Your task to perform on an android device: Clear the cart on costco. Image 0: 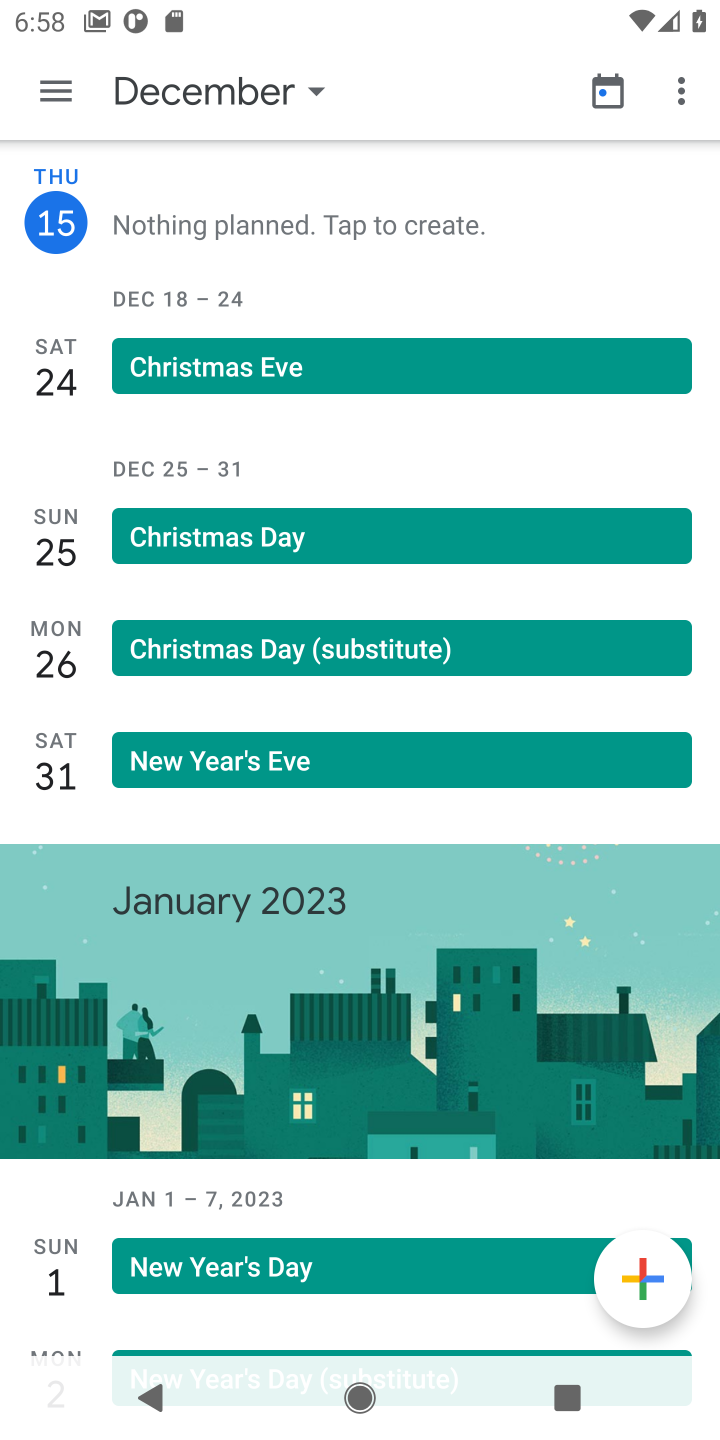
Step 0: press home button
Your task to perform on an android device: Clear the cart on costco. Image 1: 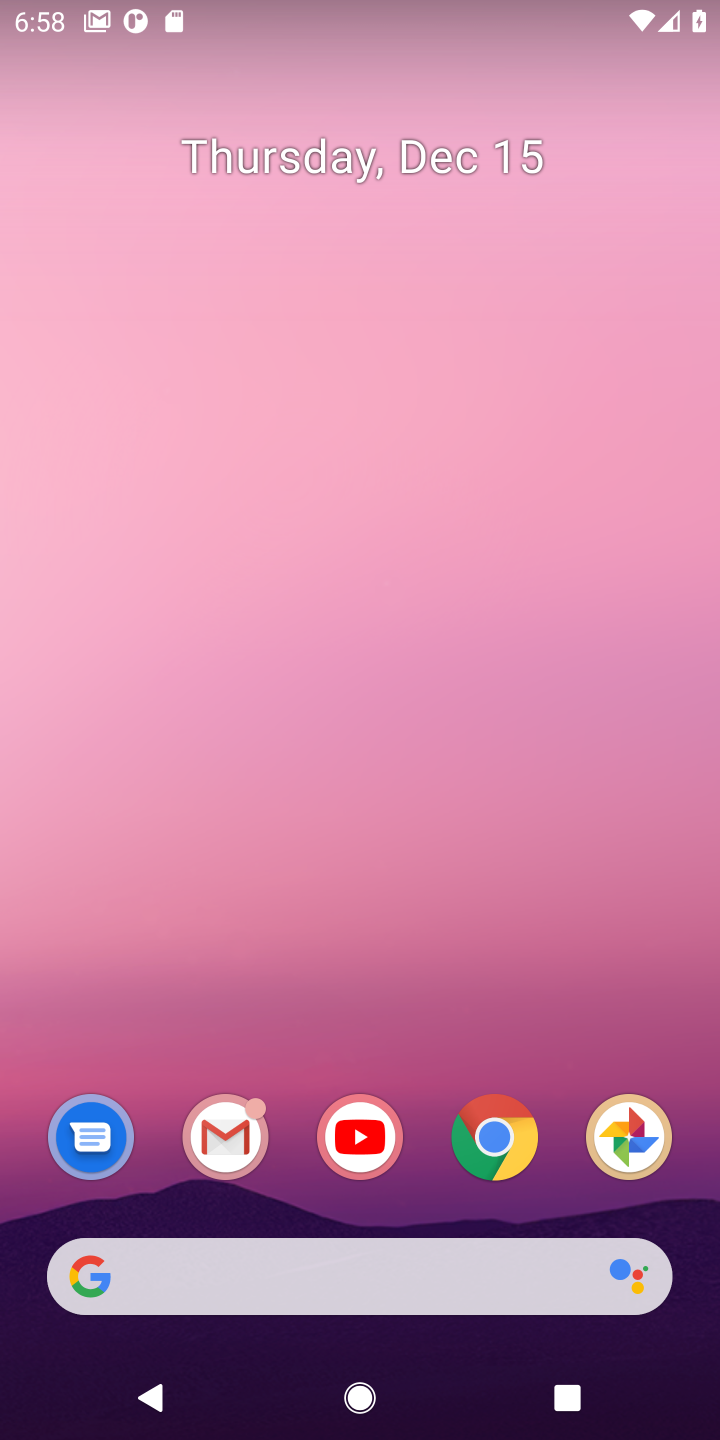
Step 1: drag from (330, 1276) to (337, 354)
Your task to perform on an android device: Clear the cart on costco. Image 2: 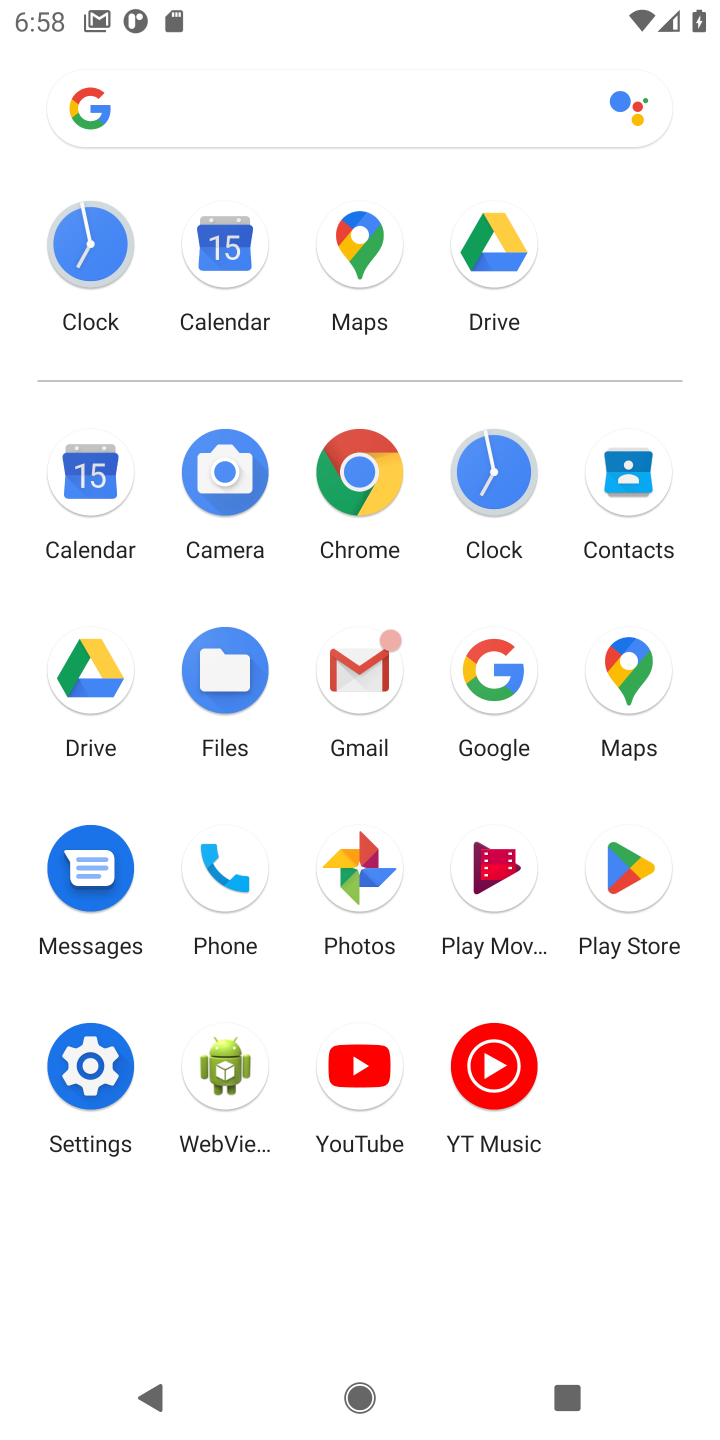
Step 2: click (482, 671)
Your task to perform on an android device: Clear the cart on costco. Image 3: 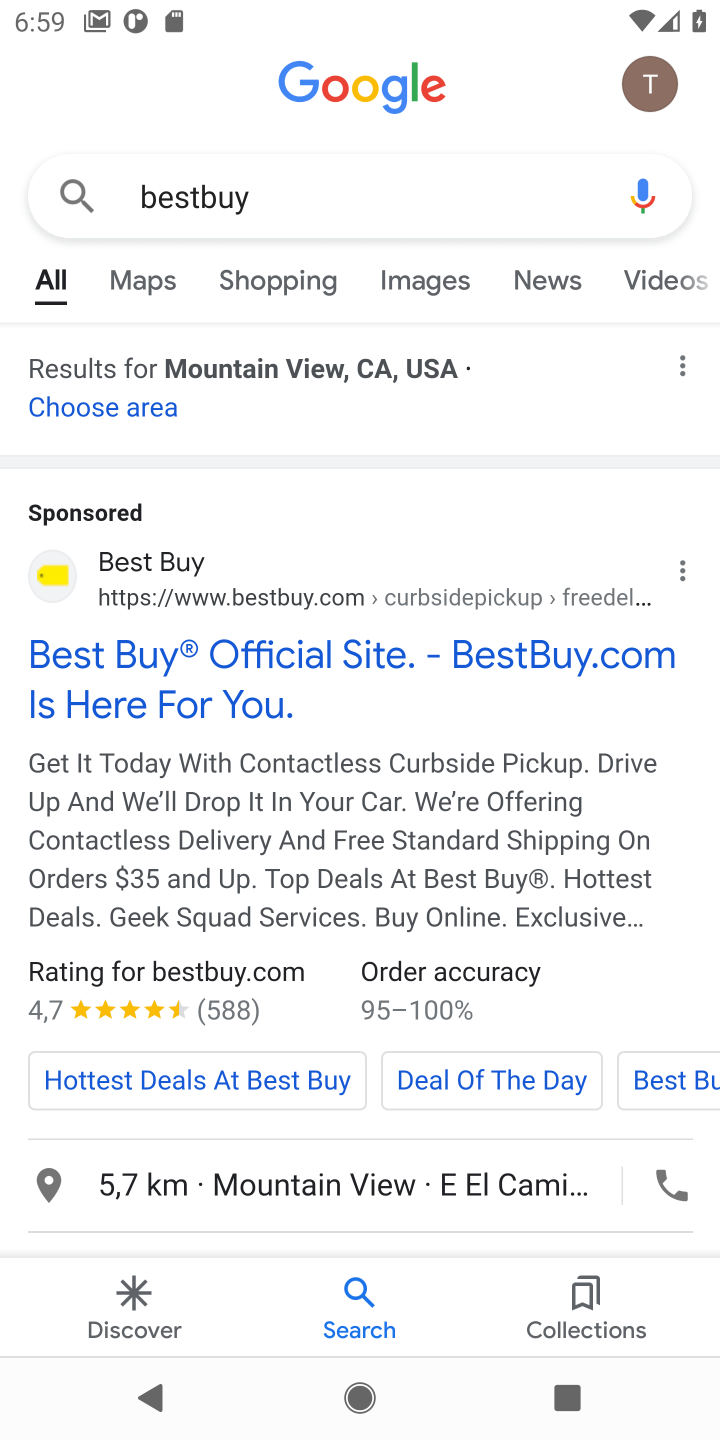
Step 3: click (200, 196)
Your task to perform on an android device: Clear the cart on costco. Image 4: 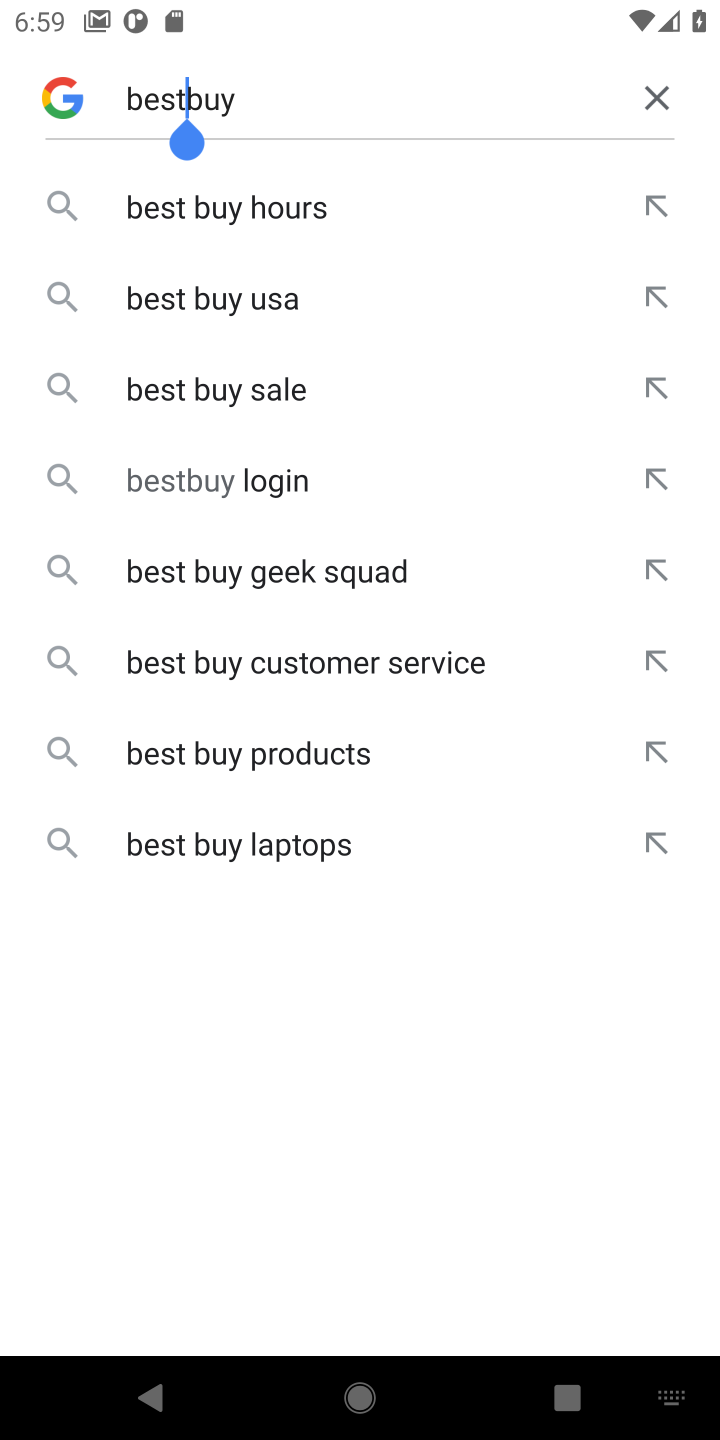
Step 4: click (665, 105)
Your task to perform on an android device: Clear the cart on costco. Image 5: 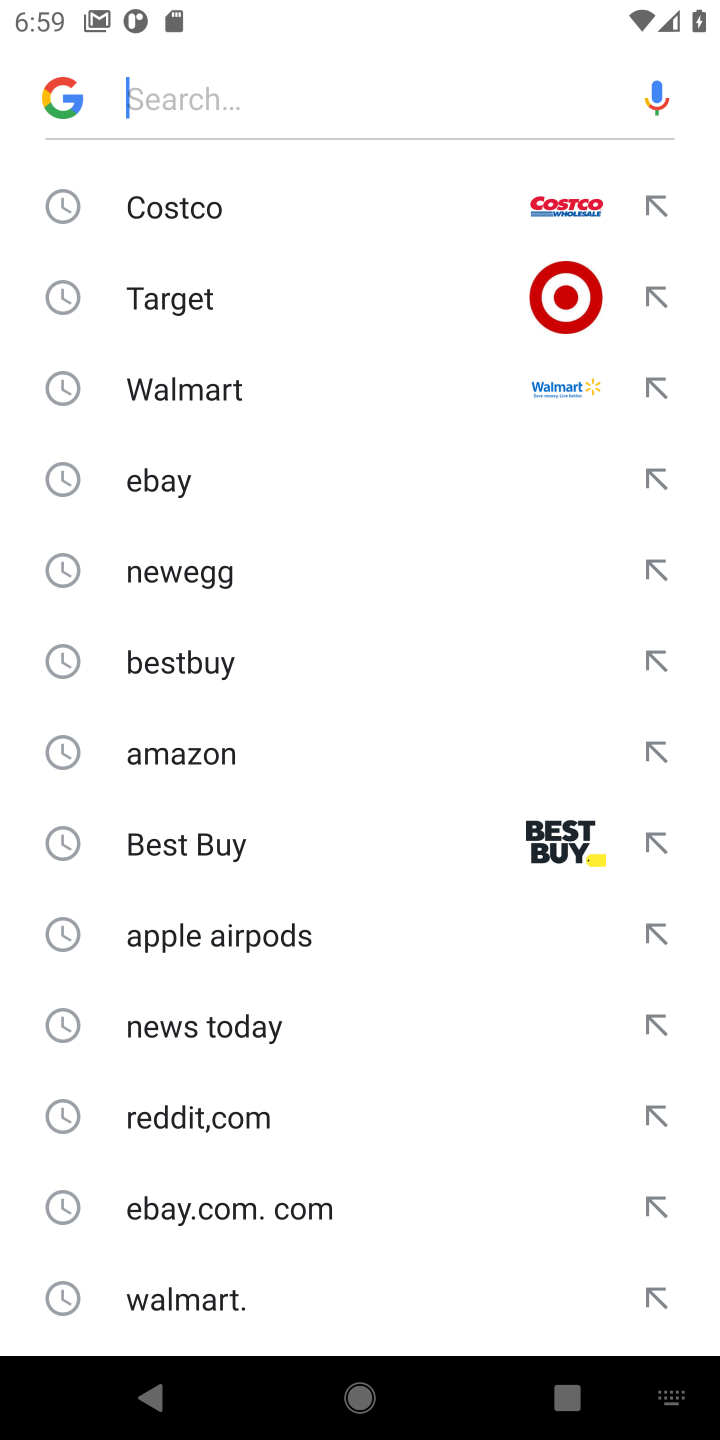
Step 5: click (568, 196)
Your task to perform on an android device: Clear the cart on costco. Image 6: 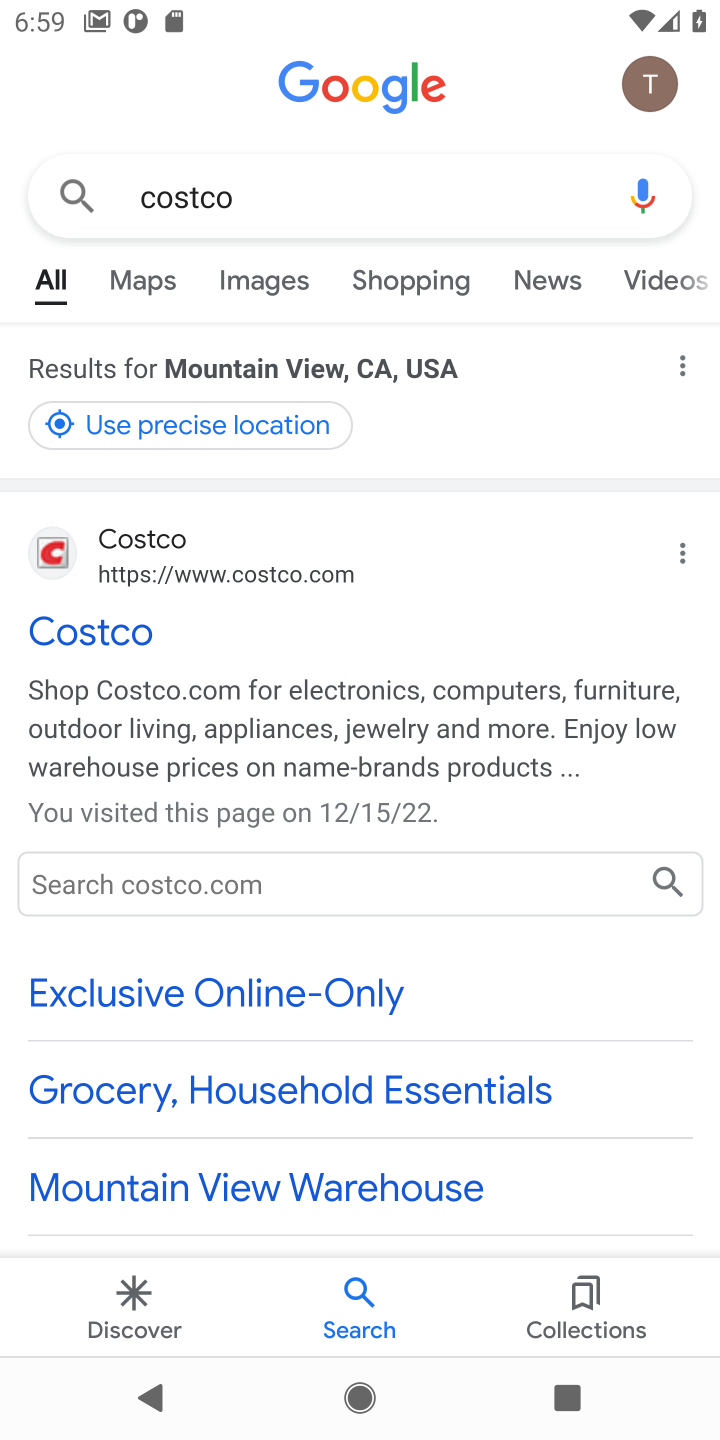
Step 6: click (82, 623)
Your task to perform on an android device: Clear the cart on costco. Image 7: 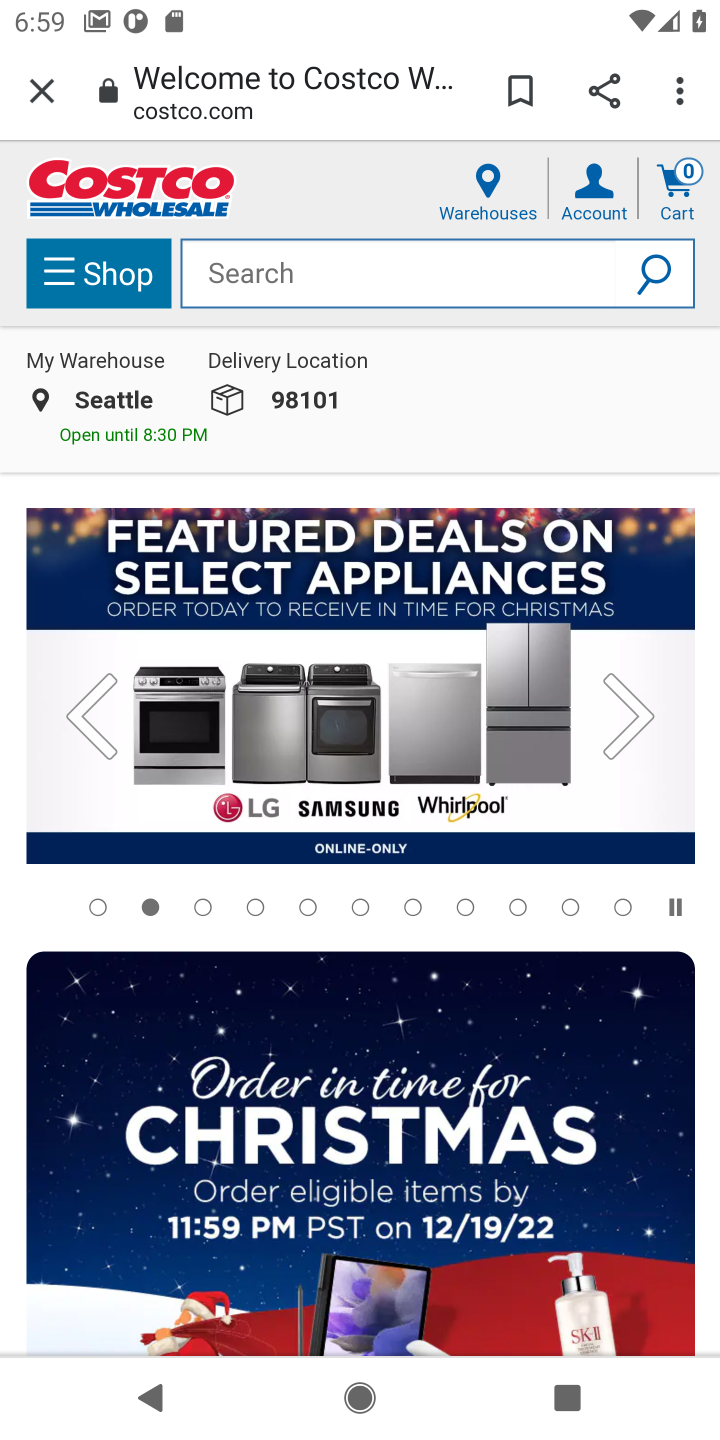
Step 7: click (667, 183)
Your task to perform on an android device: Clear the cart on costco. Image 8: 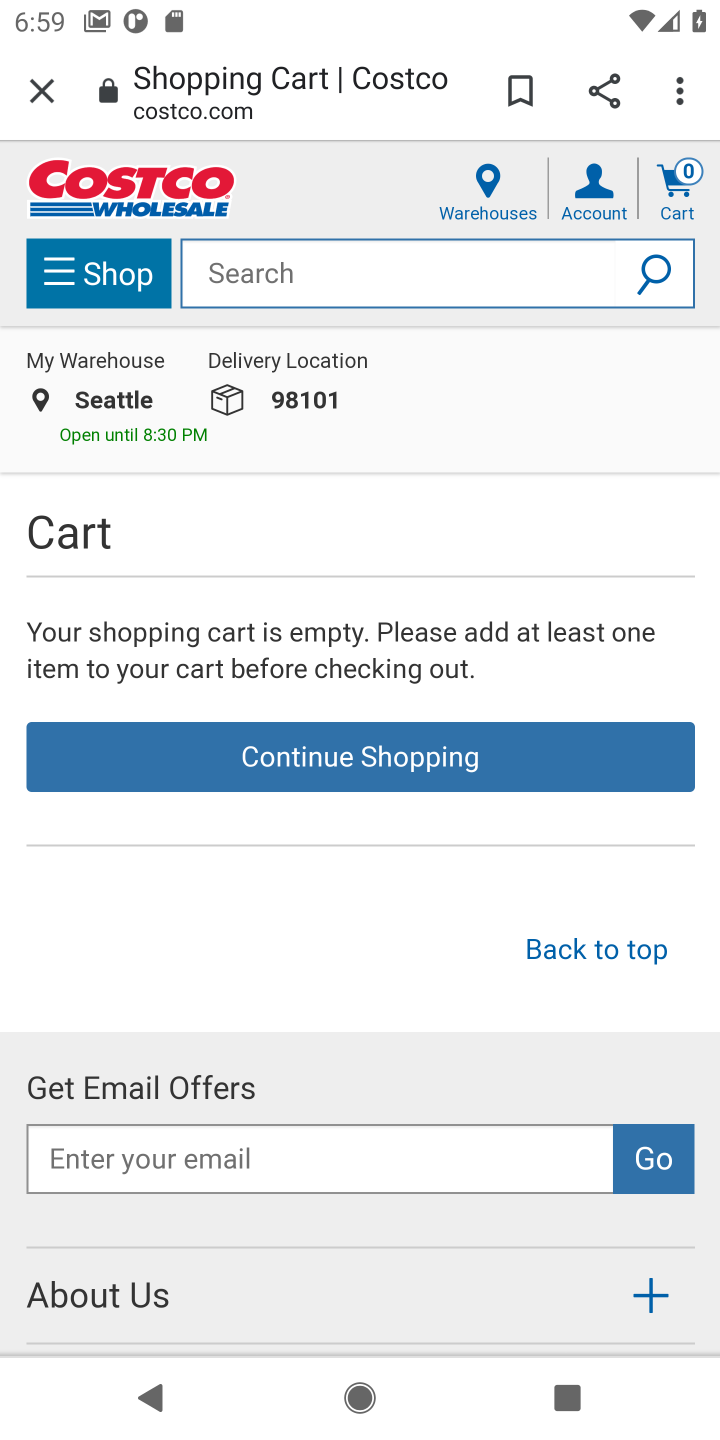
Step 8: task complete